Your task to perform on an android device: turn off location history Image 0: 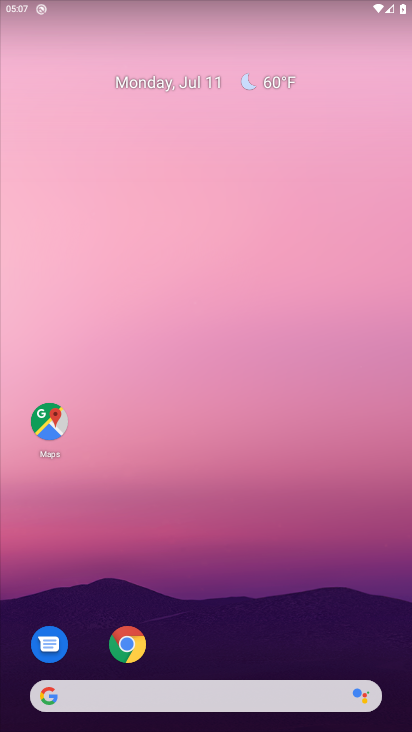
Step 0: drag from (259, 665) to (250, 232)
Your task to perform on an android device: turn off location history Image 1: 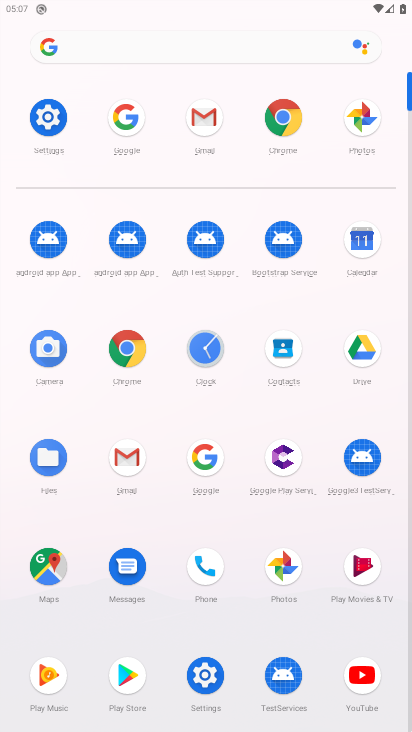
Step 1: click (34, 111)
Your task to perform on an android device: turn off location history Image 2: 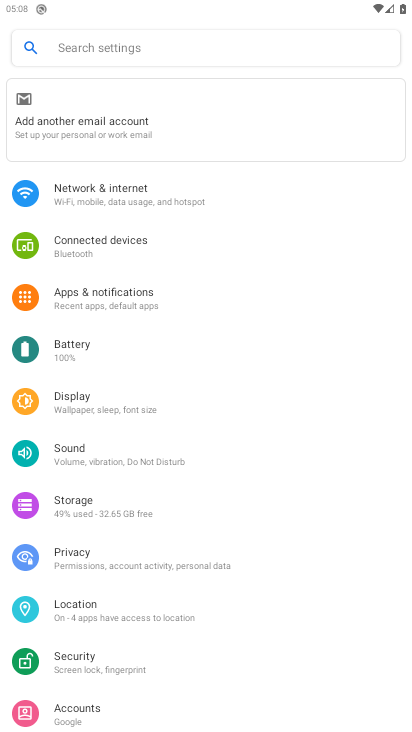
Step 2: click (103, 606)
Your task to perform on an android device: turn off location history Image 3: 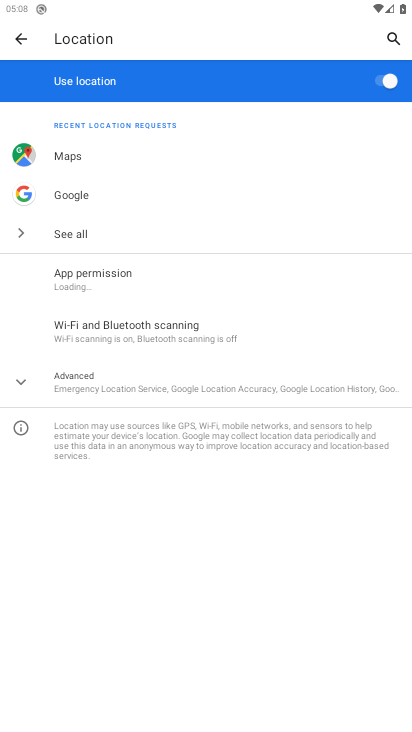
Step 3: click (97, 385)
Your task to perform on an android device: turn off location history Image 4: 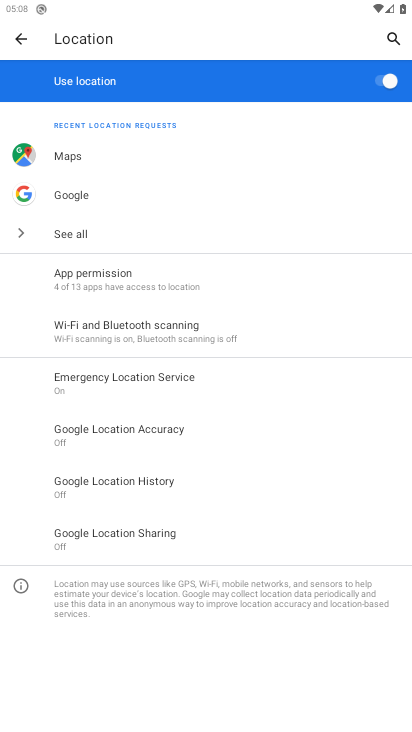
Step 4: click (131, 479)
Your task to perform on an android device: turn off location history Image 5: 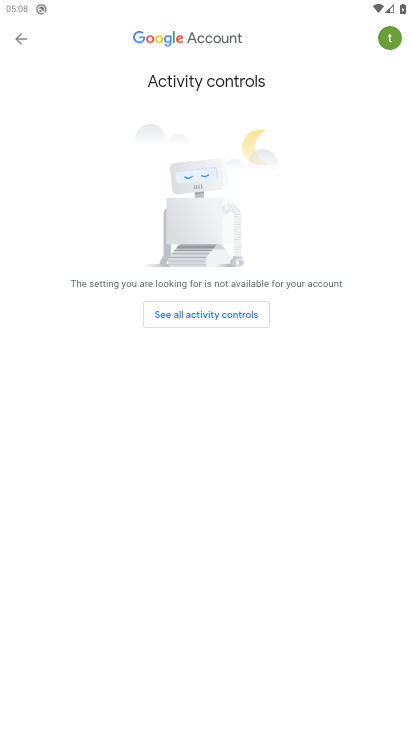
Step 5: click (247, 309)
Your task to perform on an android device: turn off location history Image 6: 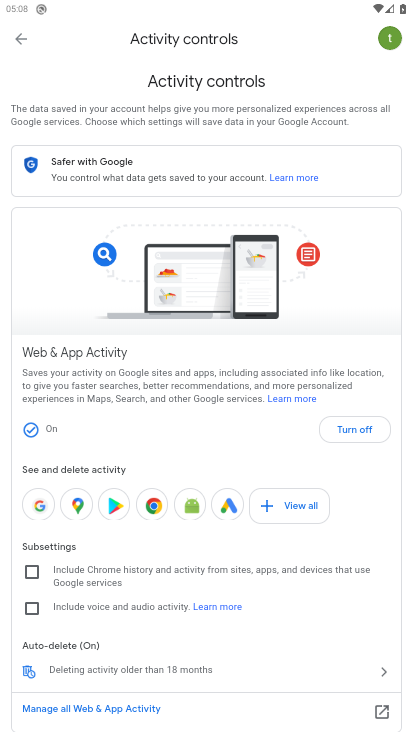
Step 6: click (361, 429)
Your task to perform on an android device: turn off location history Image 7: 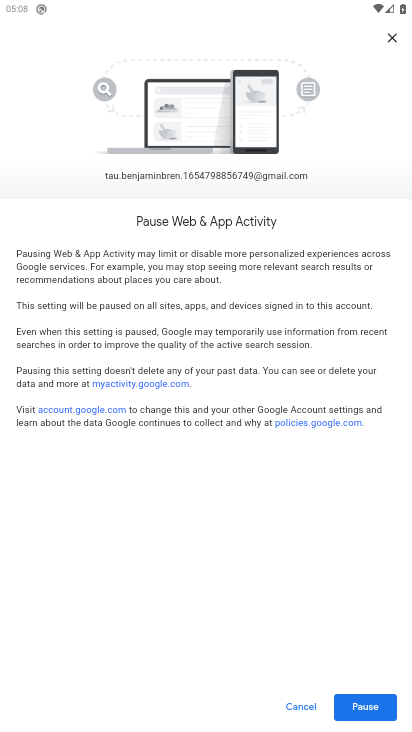
Step 7: click (364, 706)
Your task to perform on an android device: turn off location history Image 8: 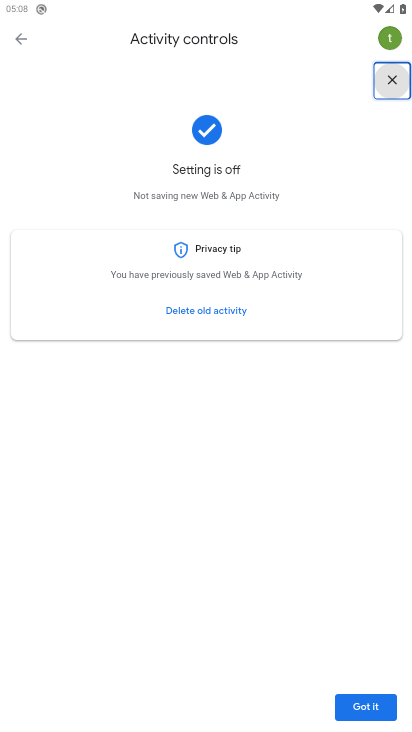
Step 8: click (366, 707)
Your task to perform on an android device: turn off location history Image 9: 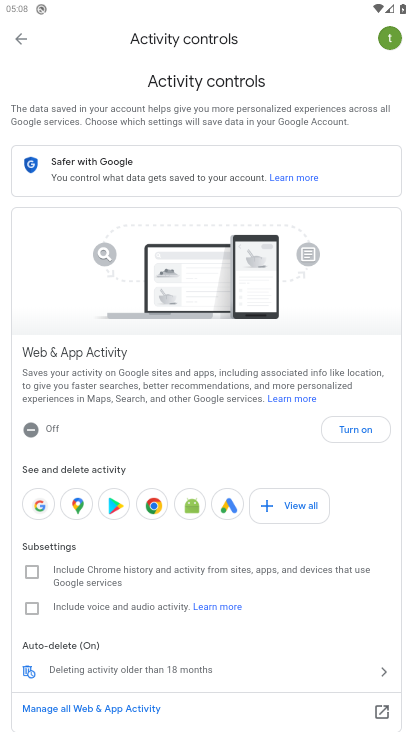
Step 9: task complete